Your task to perform on an android device: Check the weather Image 0: 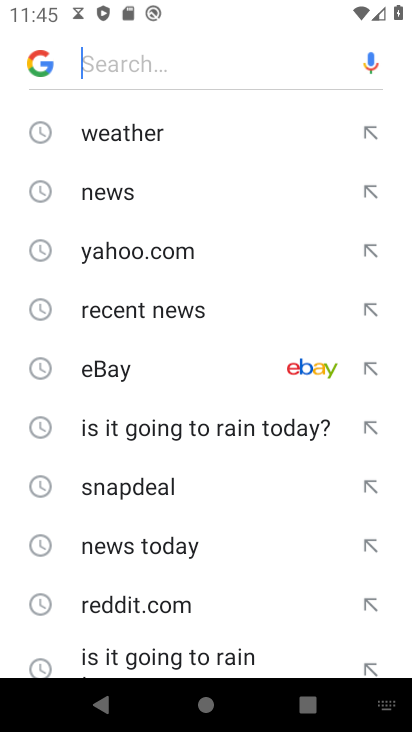
Step 0: press back button
Your task to perform on an android device: Check the weather Image 1: 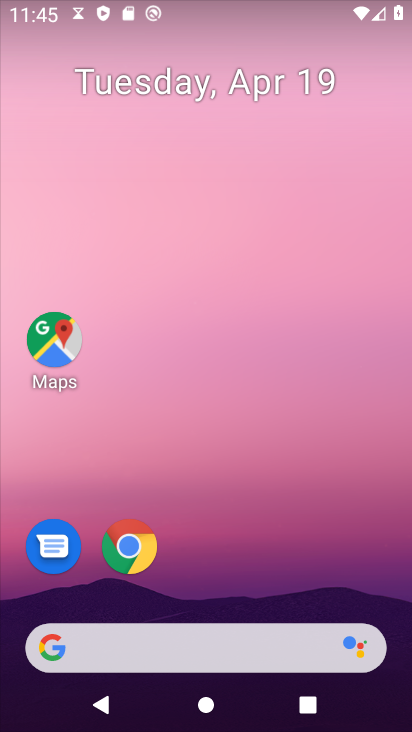
Step 1: drag from (359, 552) to (281, 0)
Your task to perform on an android device: Check the weather Image 2: 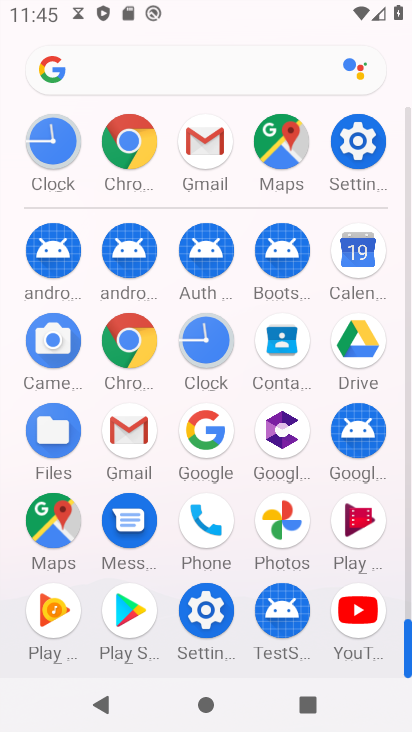
Step 2: drag from (6, 517) to (8, 342)
Your task to perform on an android device: Check the weather Image 3: 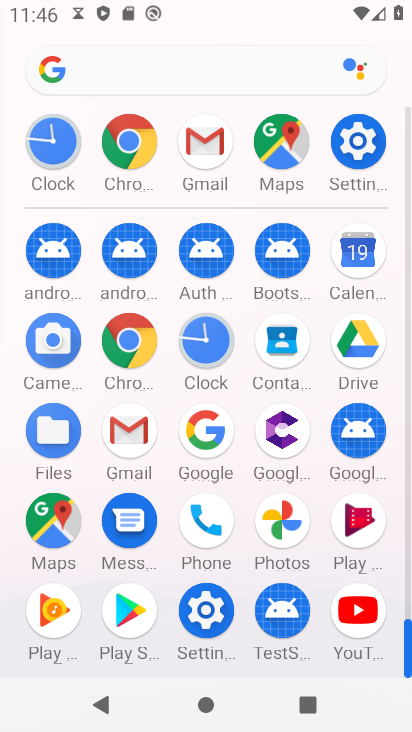
Step 3: click (210, 432)
Your task to perform on an android device: Check the weather Image 4: 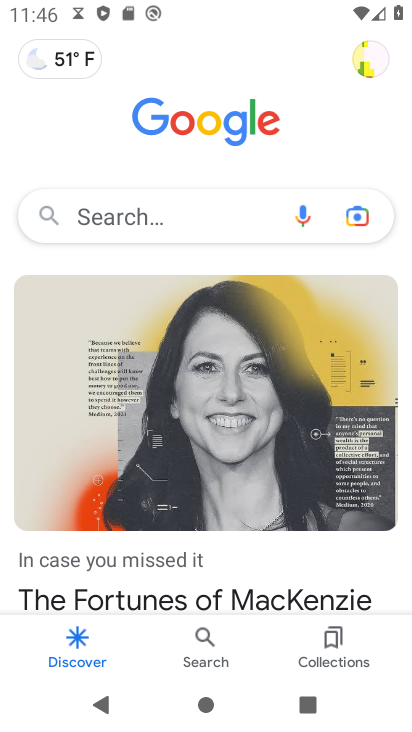
Step 4: click (50, 63)
Your task to perform on an android device: Check the weather Image 5: 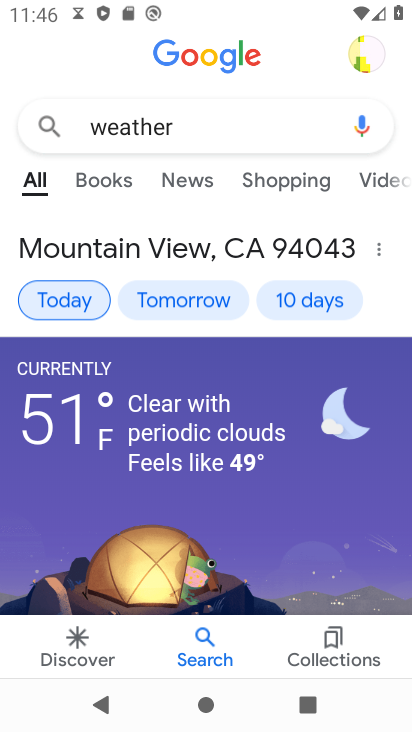
Step 5: task complete